Your task to perform on an android device: Open notification settings Image 0: 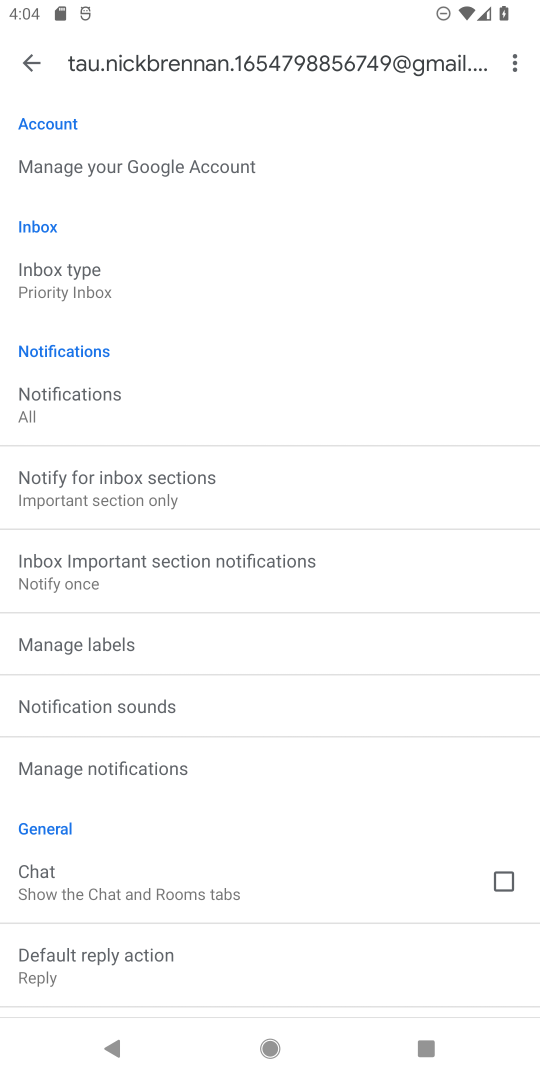
Step 0: press home button
Your task to perform on an android device: Open notification settings Image 1: 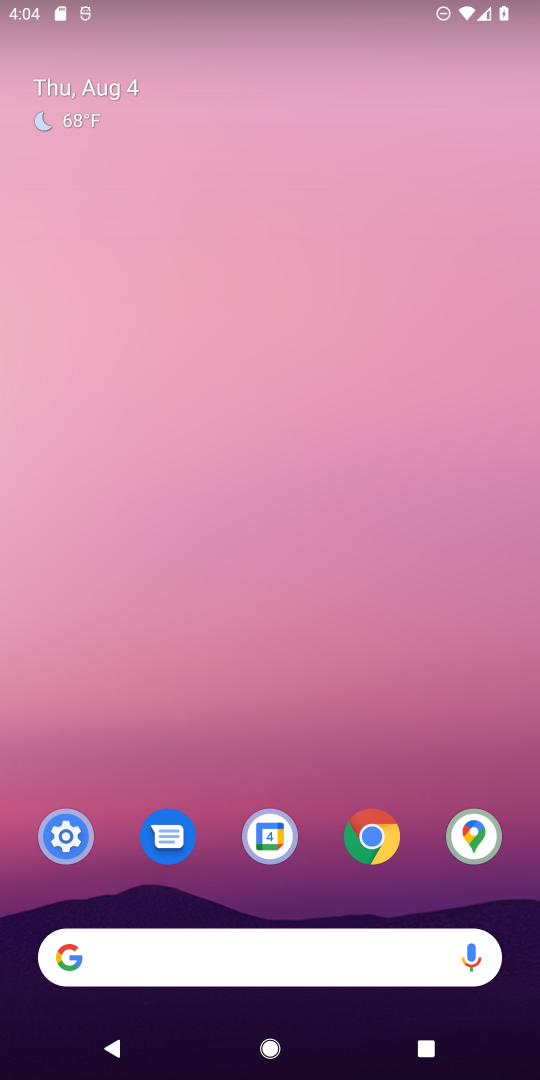
Step 1: click (63, 839)
Your task to perform on an android device: Open notification settings Image 2: 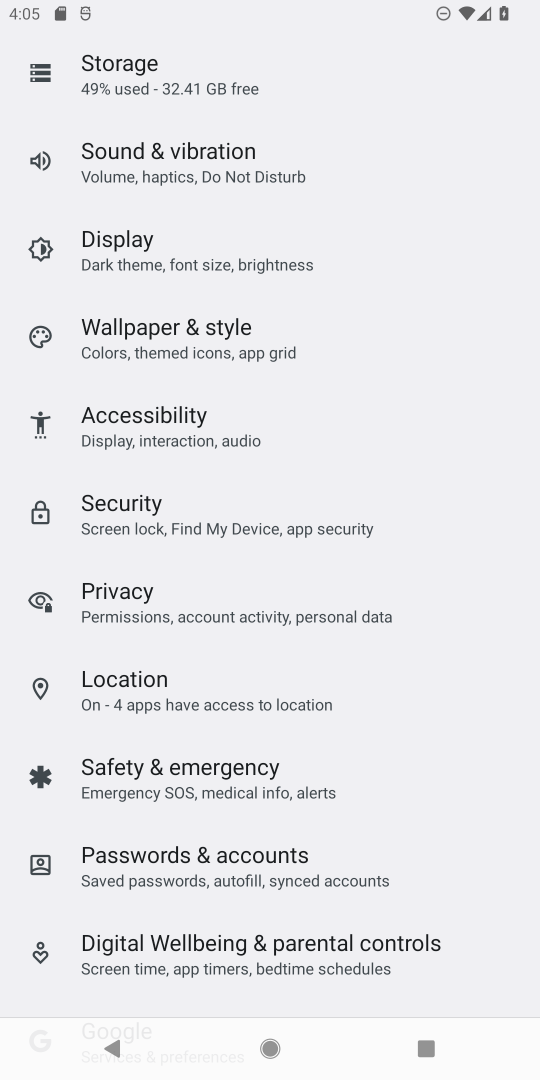
Step 2: drag from (348, 249) to (345, 1037)
Your task to perform on an android device: Open notification settings Image 3: 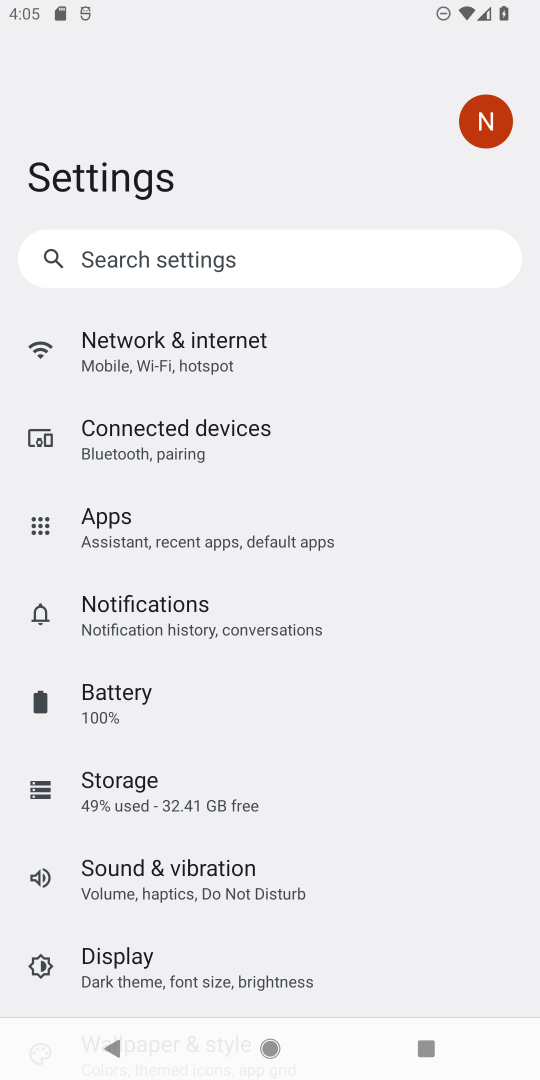
Step 3: click (187, 639)
Your task to perform on an android device: Open notification settings Image 4: 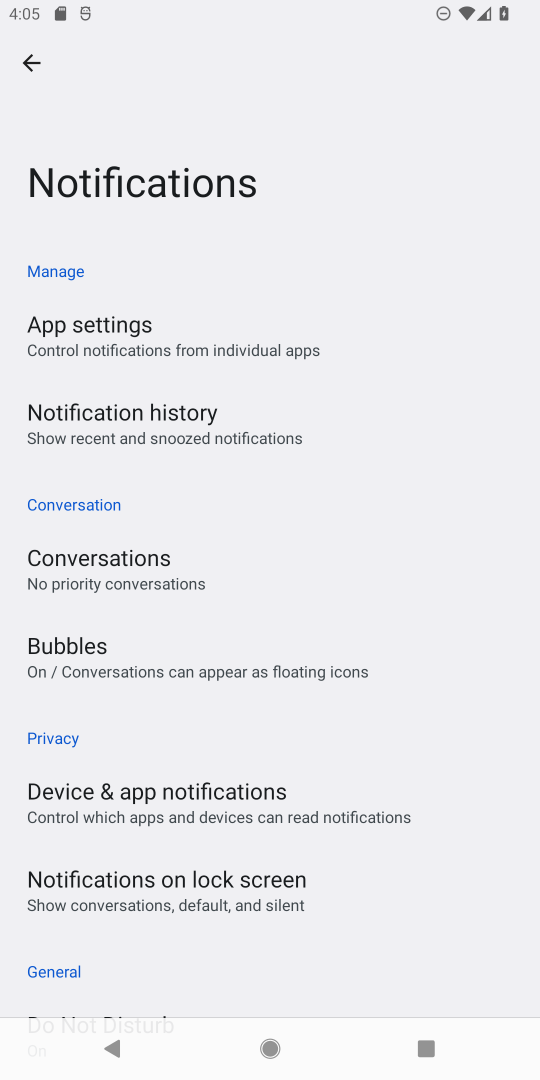
Step 4: task complete